Your task to perform on an android device: Open Wikipedia Image 0: 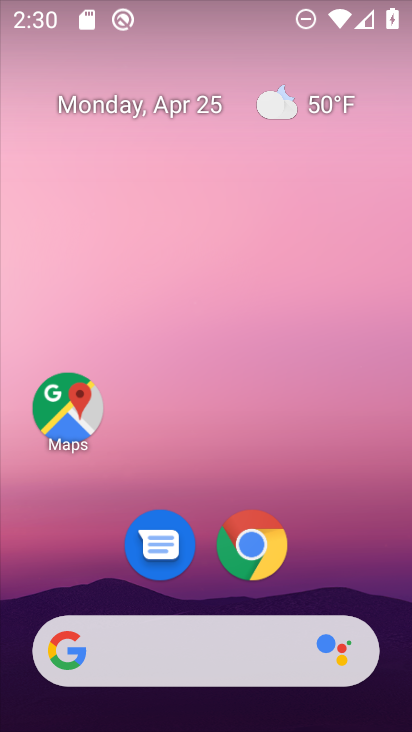
Step 0: click (274, 553)
Your task to perform on an android device: Open Wikipedia Image 1: 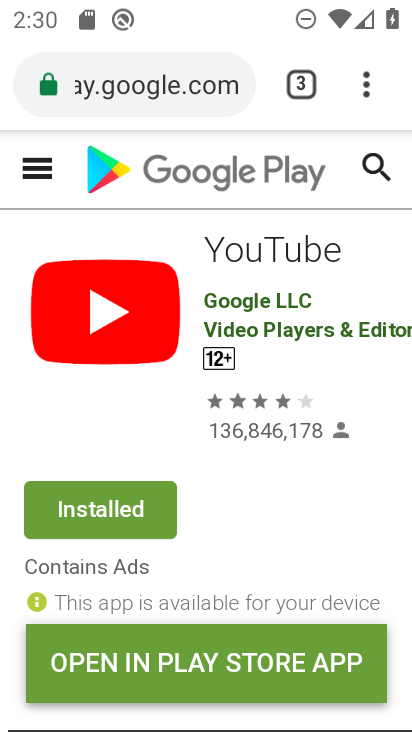
Step 1: click (302, 87)
Your task to perform on an android device: Open Wikipedia Image 2: 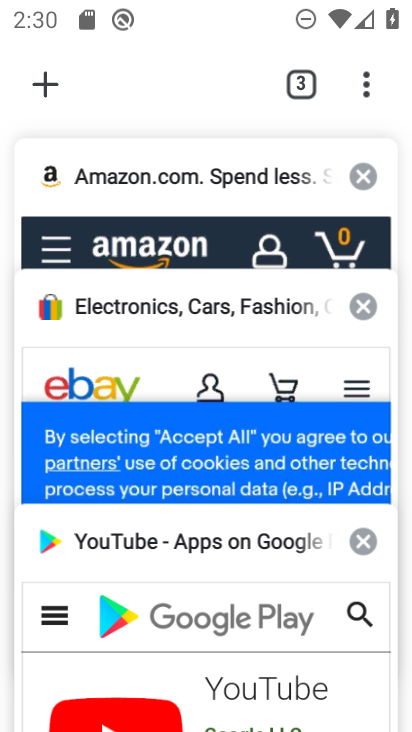
Step 2: click (48, 75)
Your task to perform on an android device: Open Wikipedia Image 3: 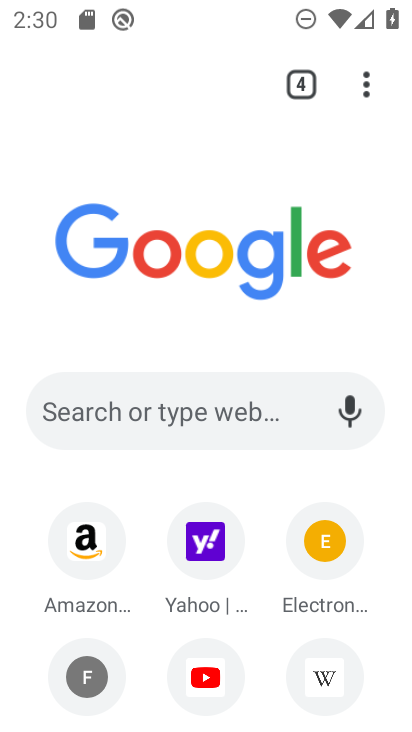
Step 3: click (331, 675)
Your task to perform on an android device: Open Wikipedia Image 4: 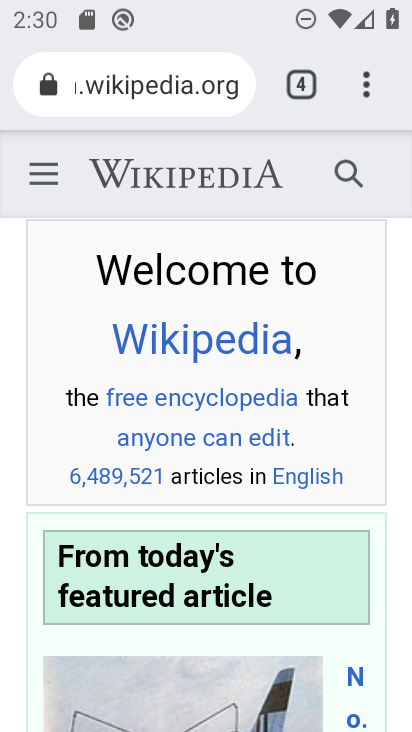
Step 4: task complete